Your task to perform on an android device: turn notification dots on Image 0: 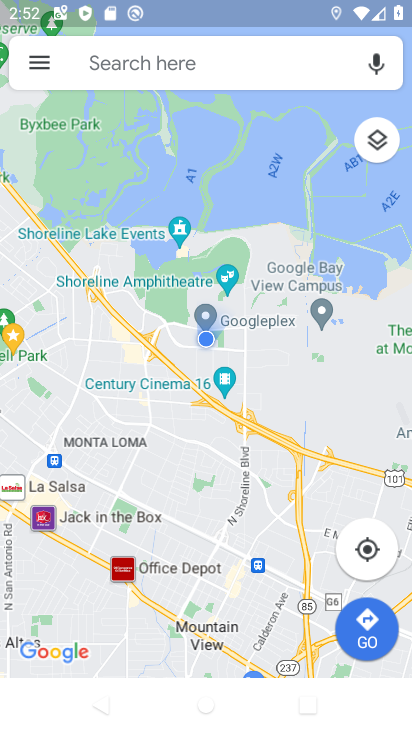
Step 0: press back button
Your task to perform on an android device: turn notification dots on Image 1: 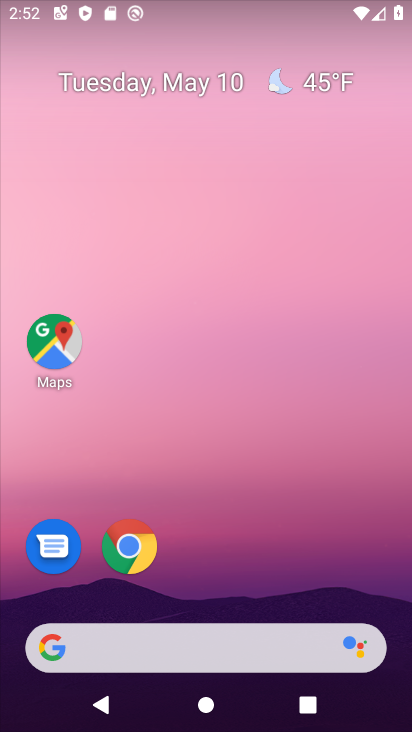
Step 1: drag from (250, 555) to (256, 0)
Your task to perform on an android device: turn notification dots on Image 2: 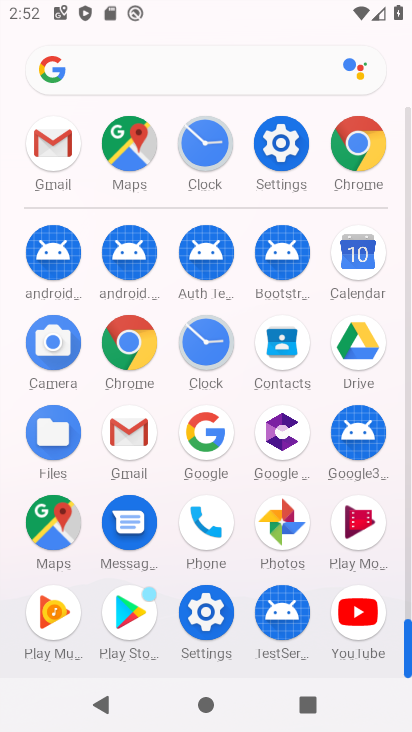
Step 2: click (273, 143)
Your task to perform on an android device: turn notification dots on Image 3: 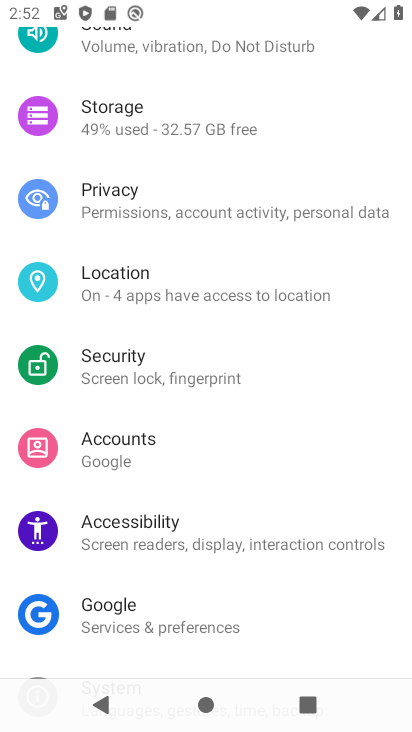
Step 3: drag from (273, 143) to (241, 528)
Your task to perform on an android device: turn notification dots on Image 4: 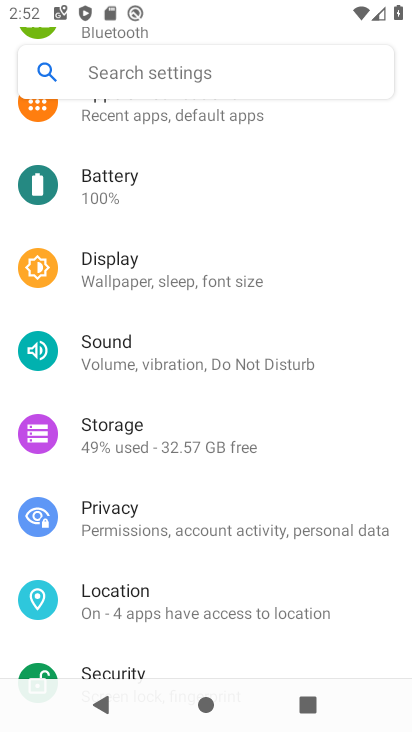
Step 4: drag from (201, 164) to (206, 534)
Your task to perform on an android device: turn notification dots on Image 5: 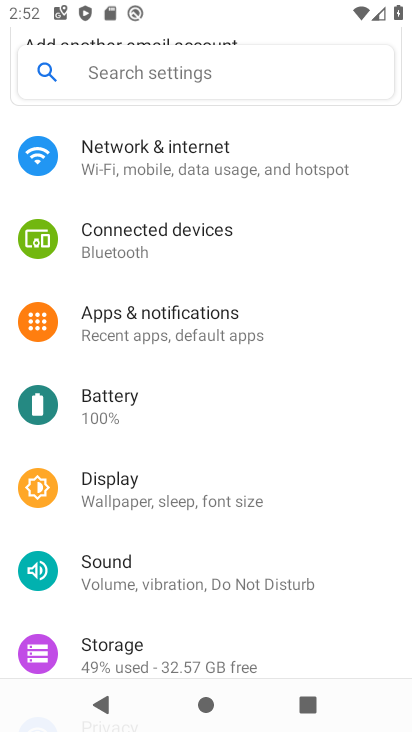
Step 5: click (171, 335)
Your task to perform on an android device: turn notification dots on Image 6: 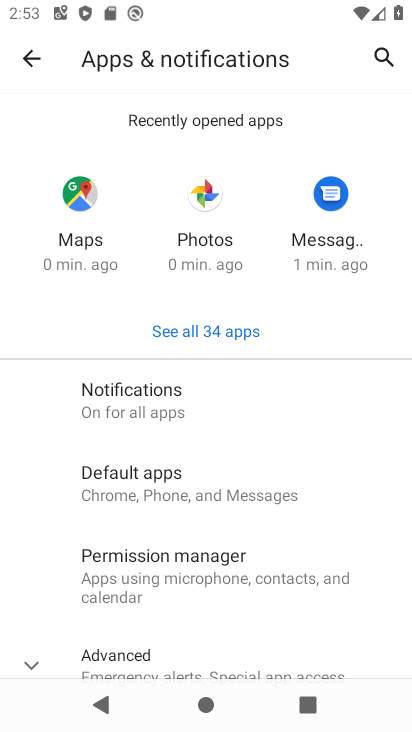
Step 6: click (189, 391)
Your task to perform on an android device: turn notification dots on Image 7: 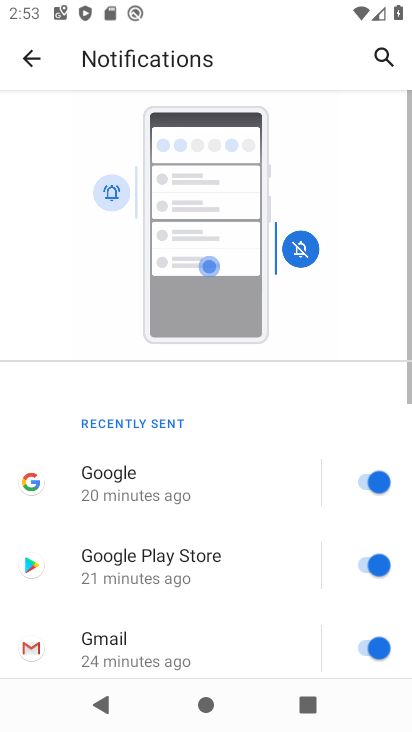
Step 7: drag from (256, 349) to (275, 119)
Your task to perform on an android device: turn notification dots on Image 8: 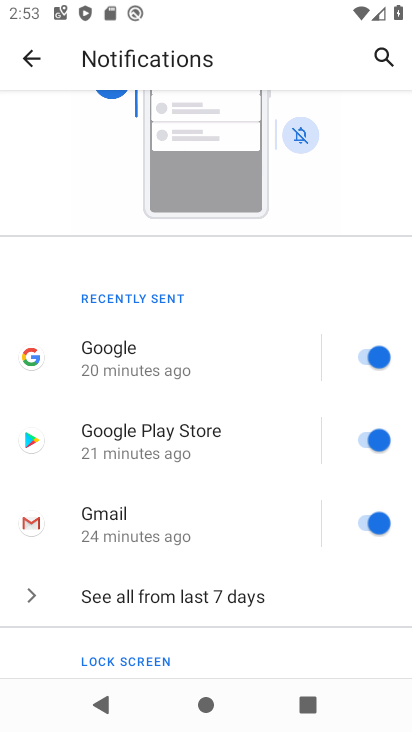
Step 8: drag from (112, 578) to (212, 150)
Your task to perform on an android device: turn notification dots on Image 9: 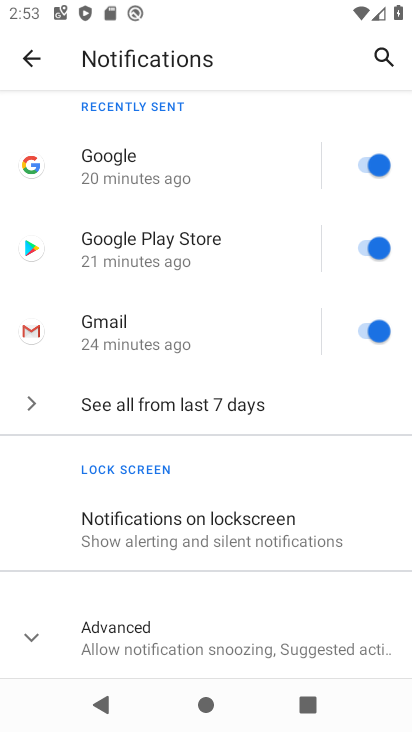
Step 9: click (149, 627)
Your task to perform on an android device: turn notification dots on Image 10: 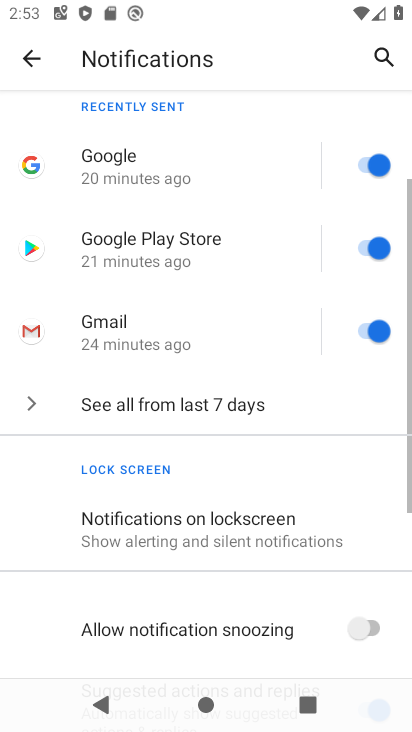
Step 10: task complete